Your task to perform on an android device: change the clock display to analog Image 0: 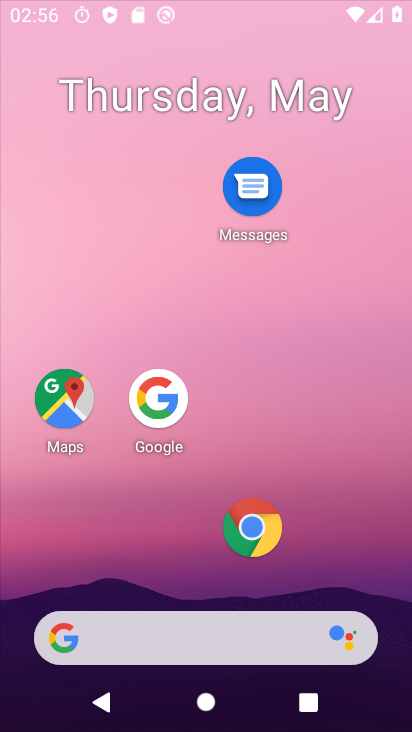
Step 0: drag from (225, 578) to (168, 108)
Your task to perform on an android device: change the clock display to analog Image 1: 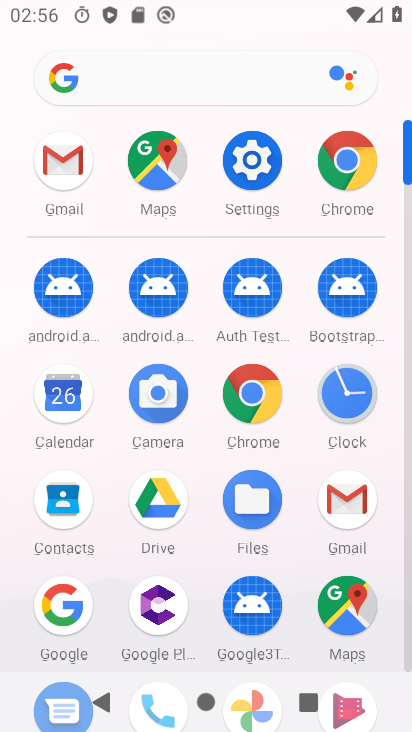
Step 1: drag from (203, 599) to (240, 172)
Your task to perform on an android device: change the clock display to analog Image 2: 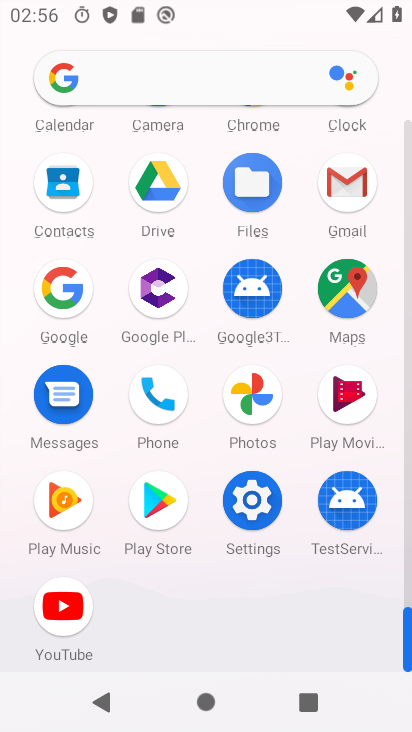
Step 2: drag from (182, 191) to (200, 466)
Your task to perform on an android device: change the clock display to analog Image 3: 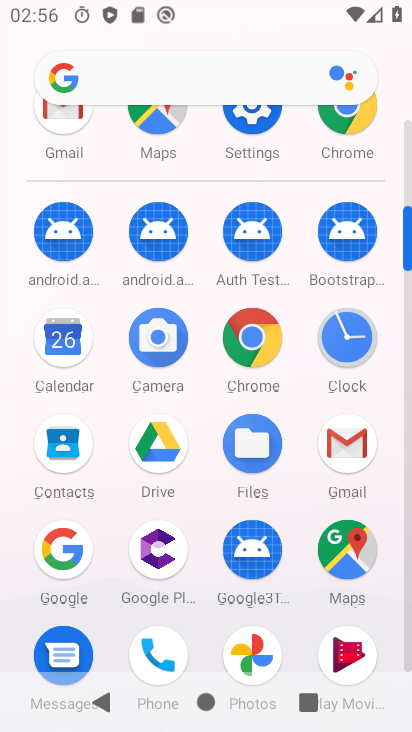
Step 3: click (340, 338)
Your task to perform on an android device: change the clock display to analog Image 4: 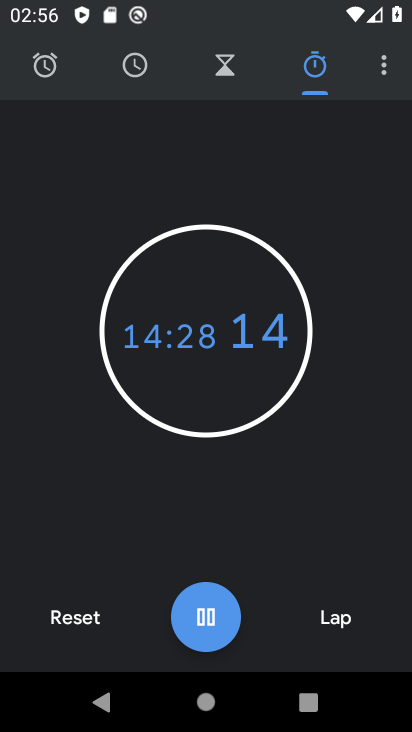
Step 4: click (385, 43)
Your task to perform on an android device: change the clock display to analog Image 5: 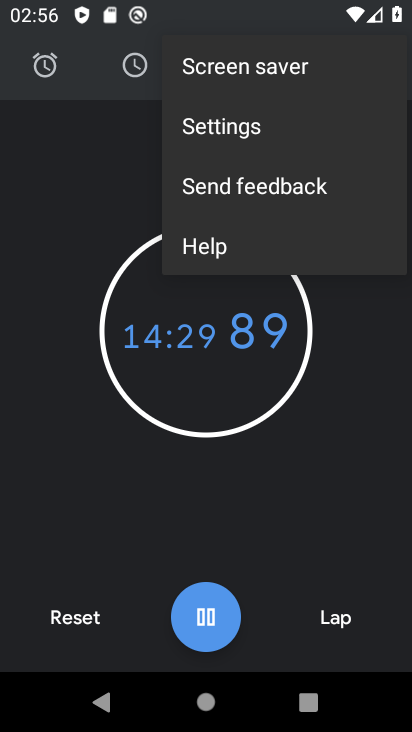
Step 5: click (272, 106)
Your task to perform on an android device: change the clock display to analog Image 6: 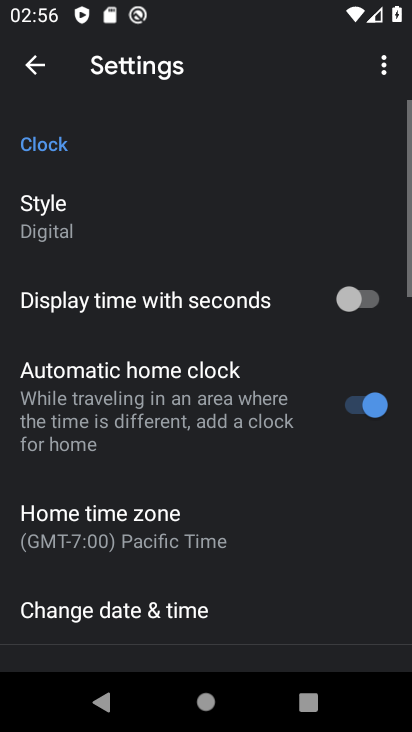
Step 6: click (97, 222)
Your task to perform on an android device: change the clock display to analog Image 7: 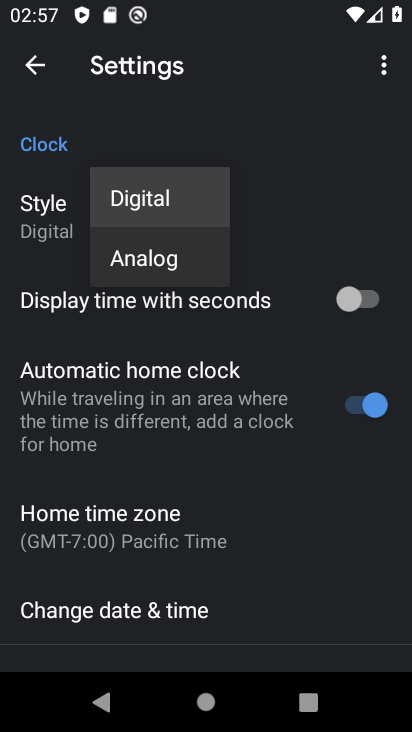
Step 7: click (160, 263)
Your task to perform on an android device: change the clock display to analog Image 8: 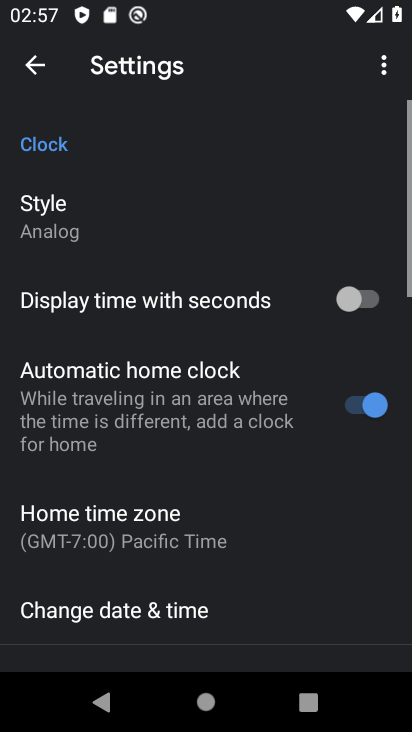
Step 8: click (298, 140)
Your task to perform on an android device: change the clock display to analog Image 9: 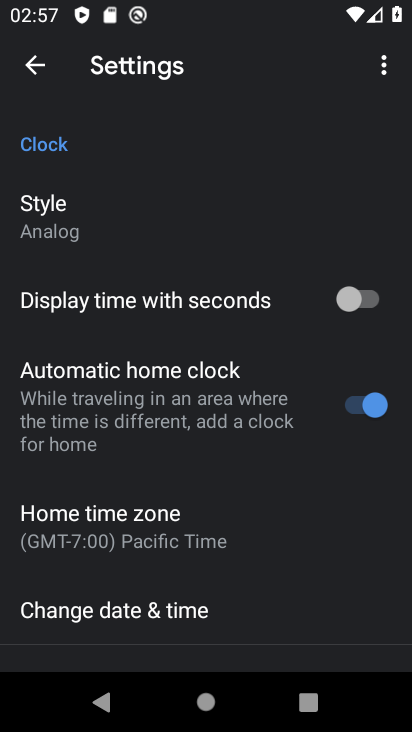
Step 9: task complete